Your task to perform on an android device: turn on the 12-hour format for clock Image 0: 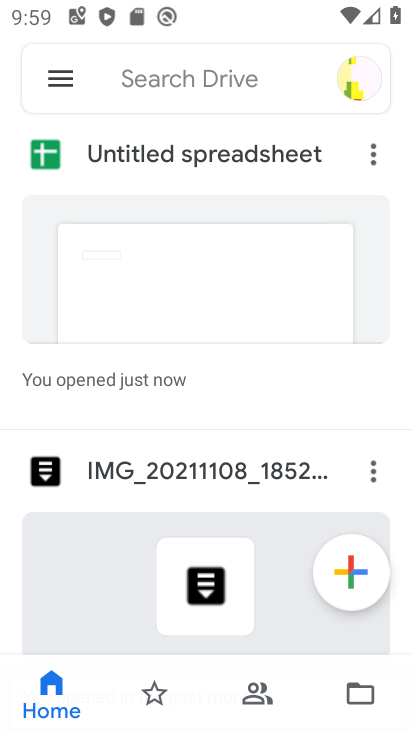
Step 0: press home button
Your task to perform on an android device: turn on the 12-hour format for clock Image 1: 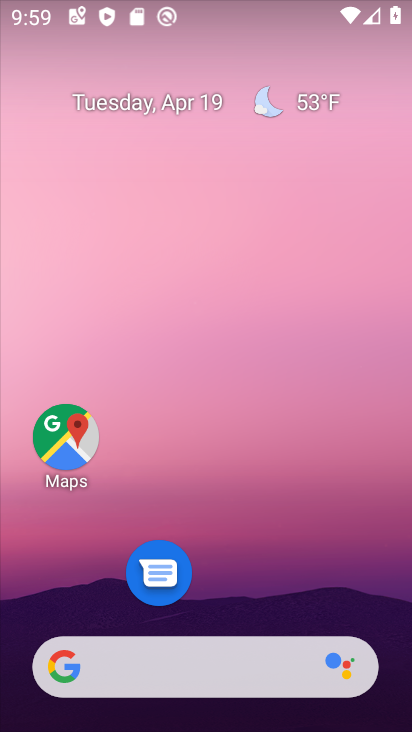
Step 1: drag from (228, 587) to (234, 87)
Your task to perform on an android device: turn on the 12-hour format for clock Image 2: 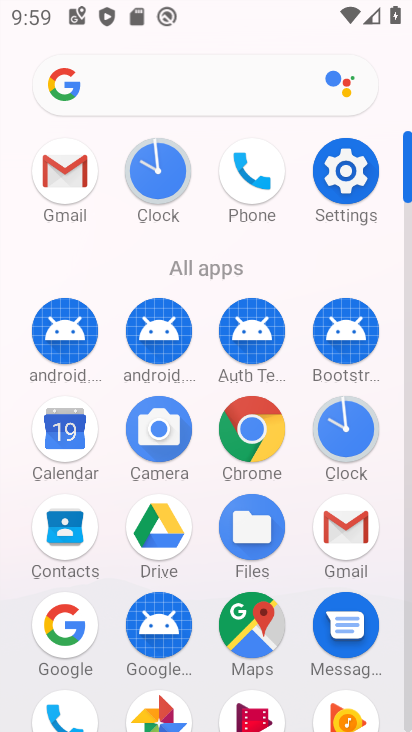
Step 2: click (342, 410)
Your task to perform on an android device: turn on the 12-hour format for clock Image 3: 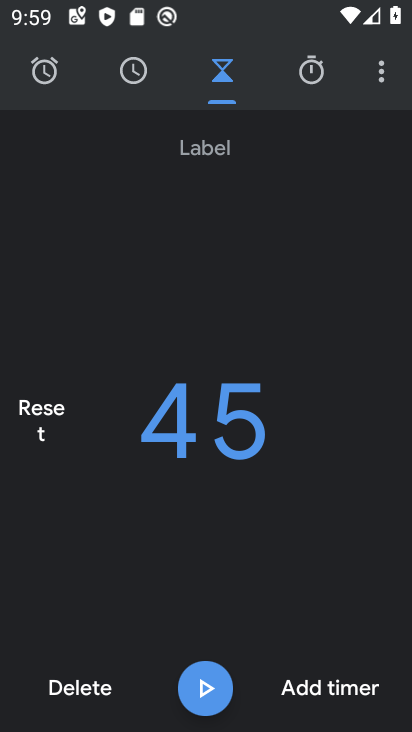
Step 3: click (378, 83)
Your task to perform on an android device: turn on the 12-hour format for clock Image 4: 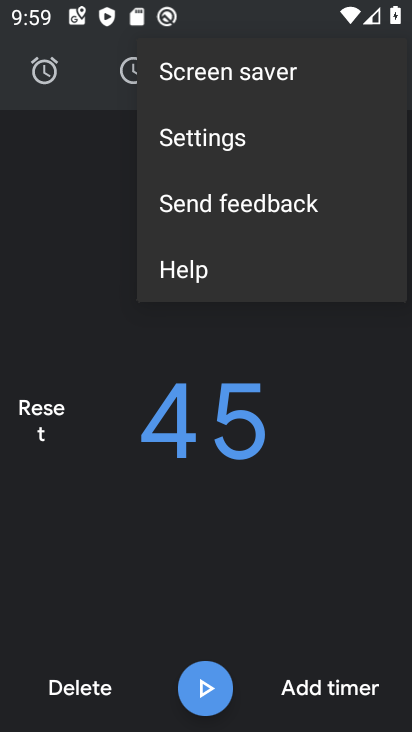
Step 4: click (234, 147)
Your task to perform on an android device: turn on the 12-hour format for clock Image 5: 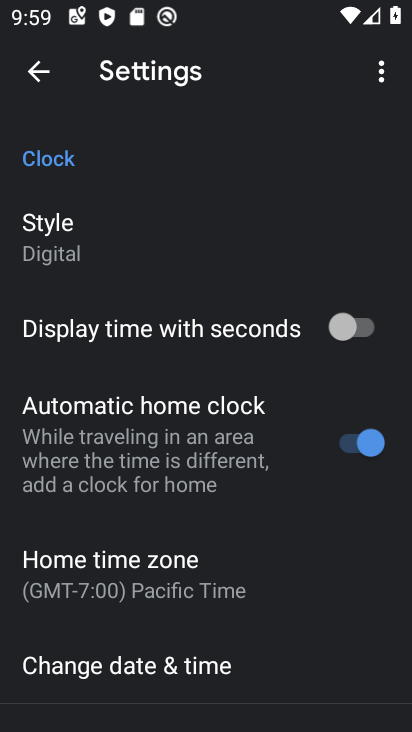
Step 5: click (238, 654)
Your task to perform on an android device: turn on the 12-hour format for clock Image 6: 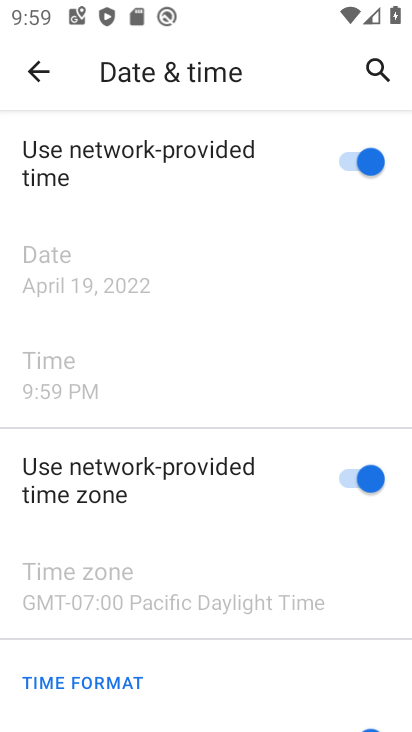
Step 6: task complete